Your task to perform on an android device: turn on wifi Image 0: 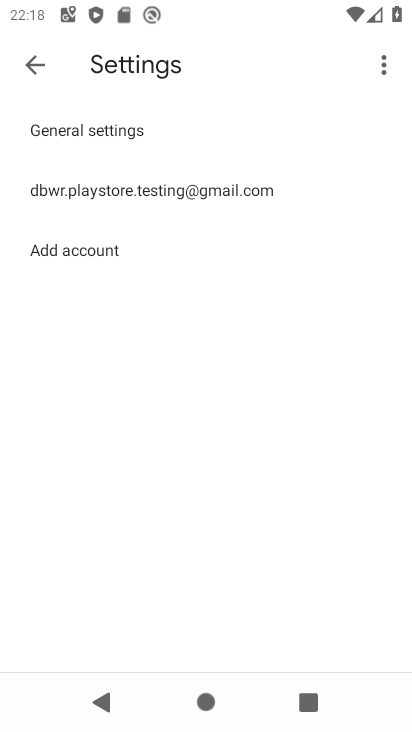
Step 0: press home button
Your task to perform on an android device: turn on wifi Image 1: 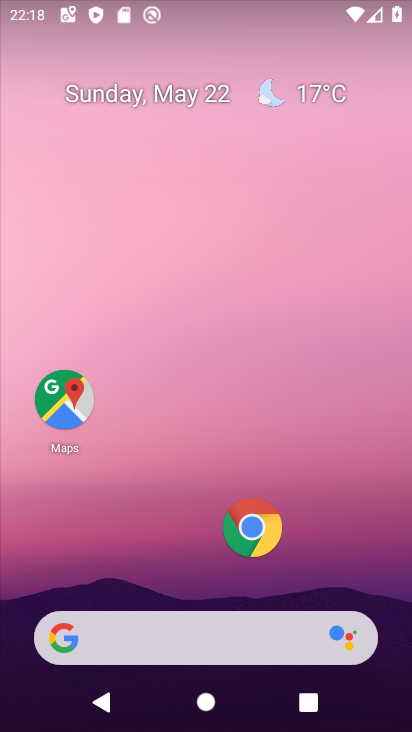
Step 1: drag from (189, 493) to (116, 49)
Your task to perform on an android device: turn on wifi Image 2: 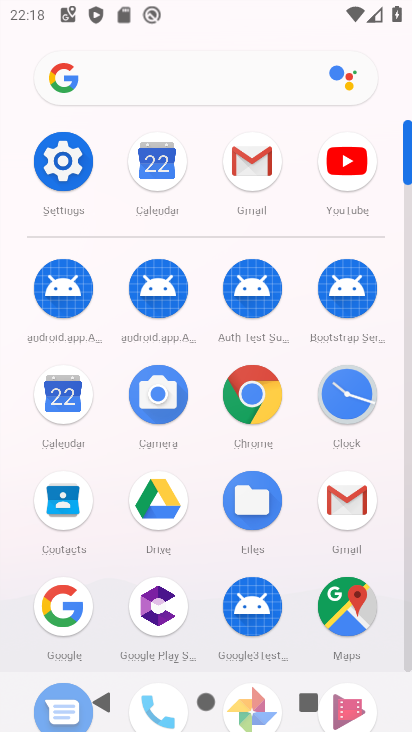
Step 2: click (61, 164)
Your task to perform on an android device: turn on wifi Image 3: 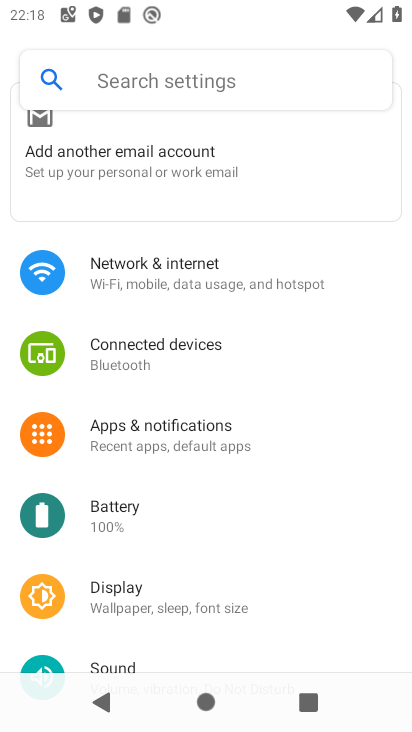
Step 3: click (161, 272)
Your task to perform on an android device: turn on wifi Image 4: 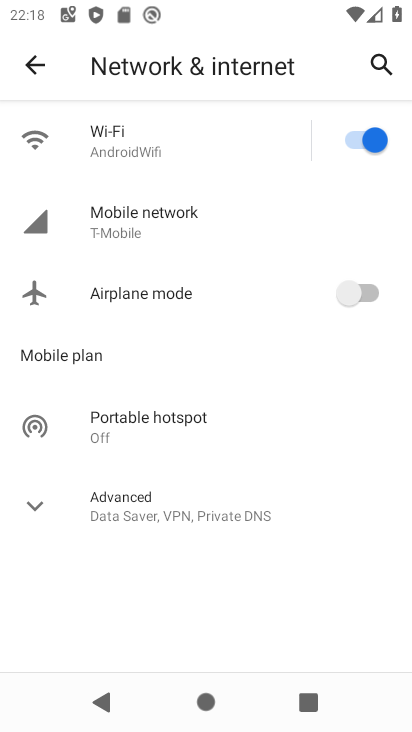
Step 4: click (128, 128)
Your task to perform on an android device: turn on wifi Image 5: 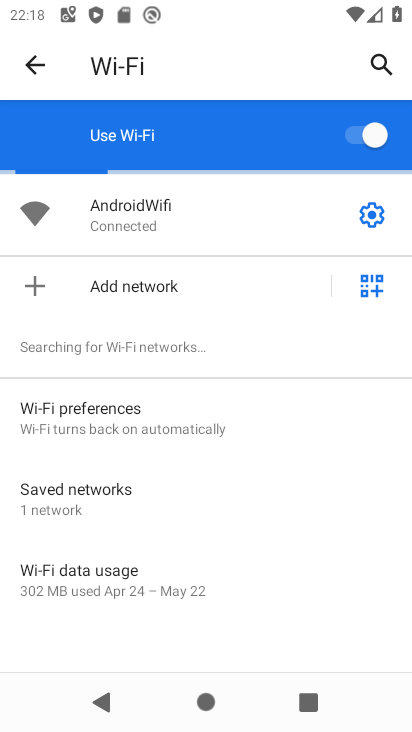
Step 5: task complete